Your task to perform on an android device: Add razer blackwidow to the cart on ebay.com, then select checkout. Image 0: 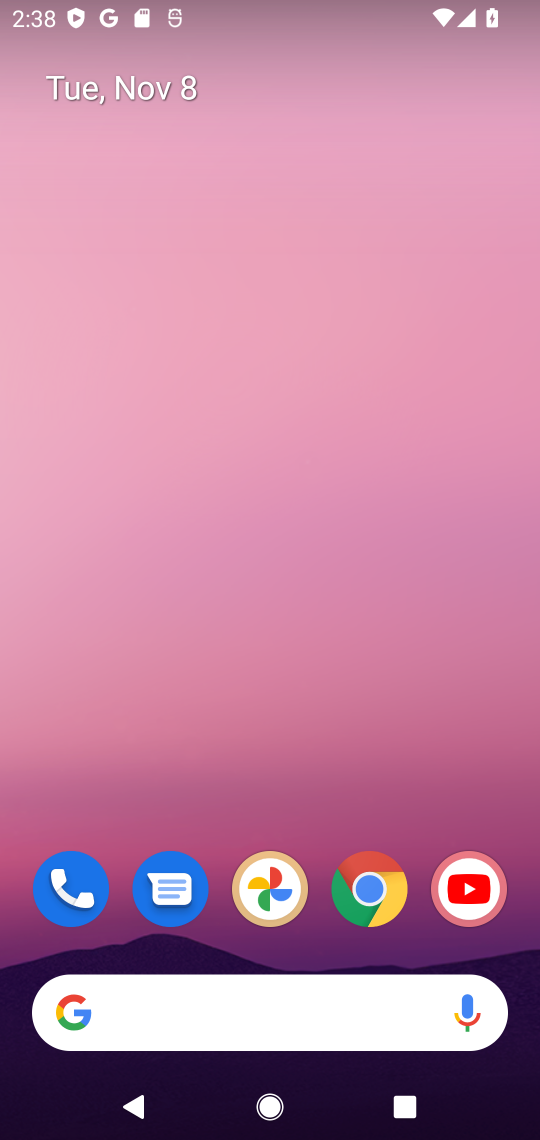
Step 0: click (372, 890)
Your task to perform on an android device: Add razer blackwidow to the cart on ebay.com, then select checkout. Image 1: 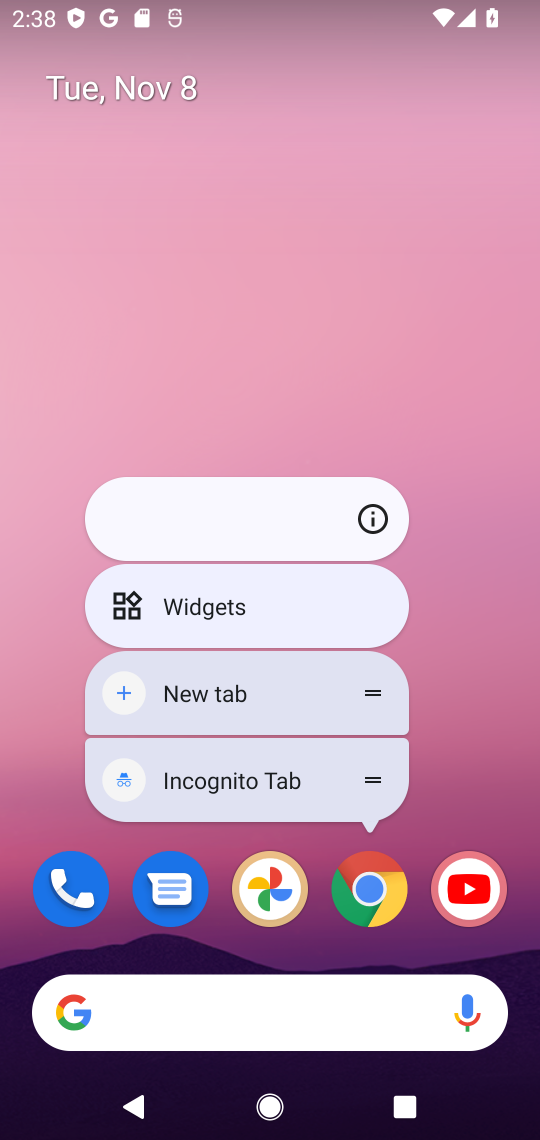
Step 1: click (372, 890)
Your task to perform on an android device: Add razer blackwidow to the cart on ebay.com, then select checkout. Image 2: 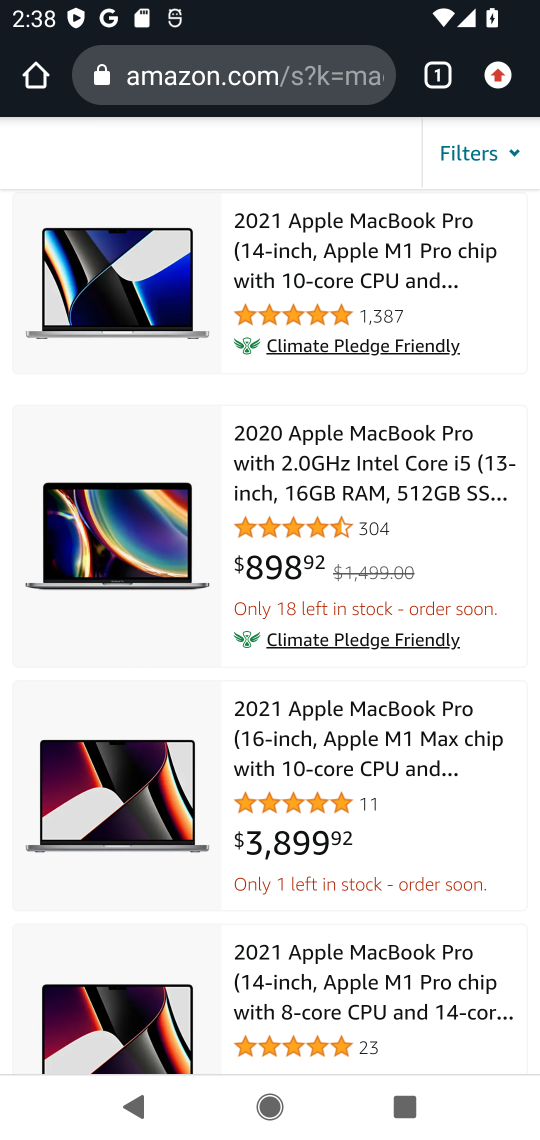
Step 2: click (181, 79)
Your task to perform on an android device: Add razer blackwidow to the cart on ebay.com, then select checkout. Image 3: 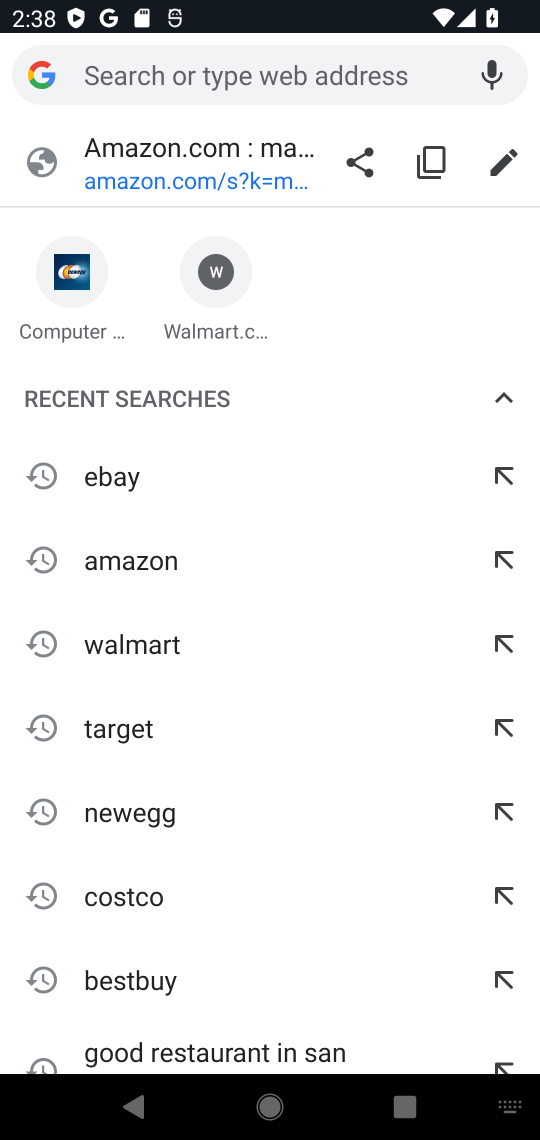
Step 3: type "ebay.com"
Your task to perform on an android device: Add razer blackwidow to the cart on ebay.com, then select checkout. Image 4: 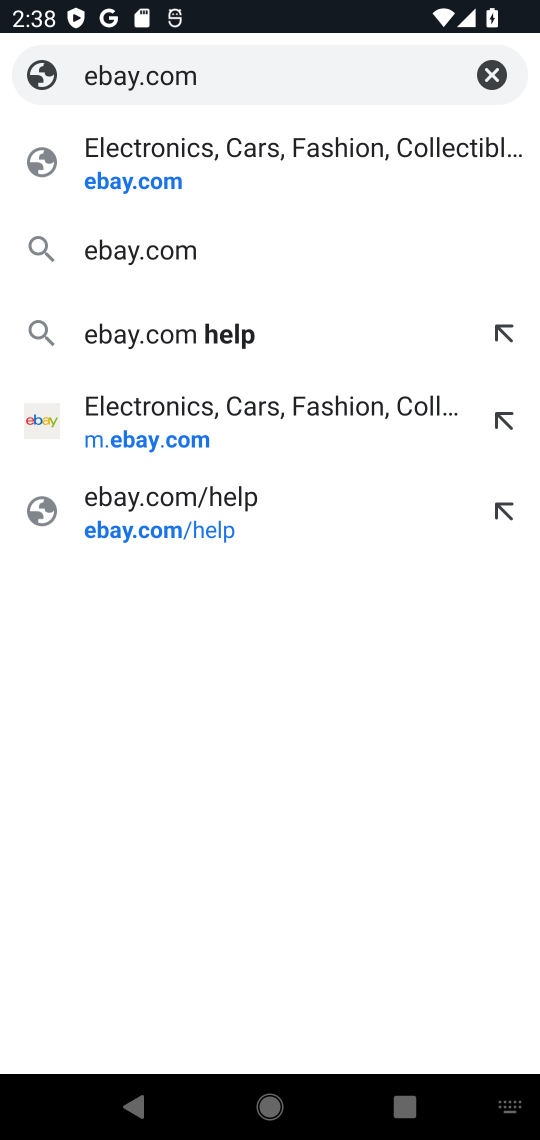
Step 4: click (115, 191)
Your task to perform on an android device: Add razer blackwidow to the cart on ebay.com, then select checkout. Image 5: 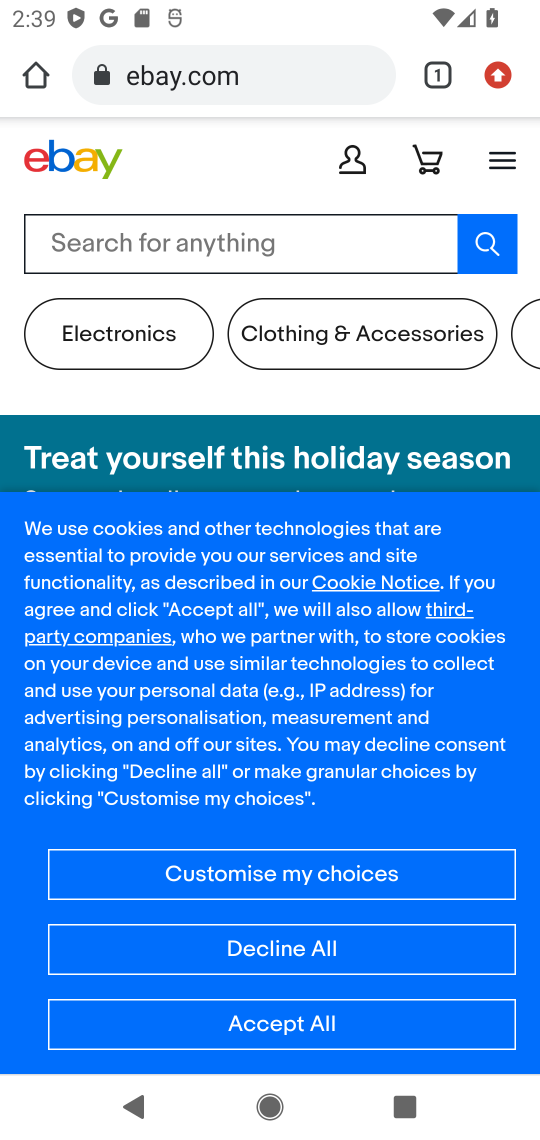
Step 5: click (110, 246)
Your task to perform on an android device: Add razer blackwidow to the cart on ebay.com, then select checkout. Image 6: 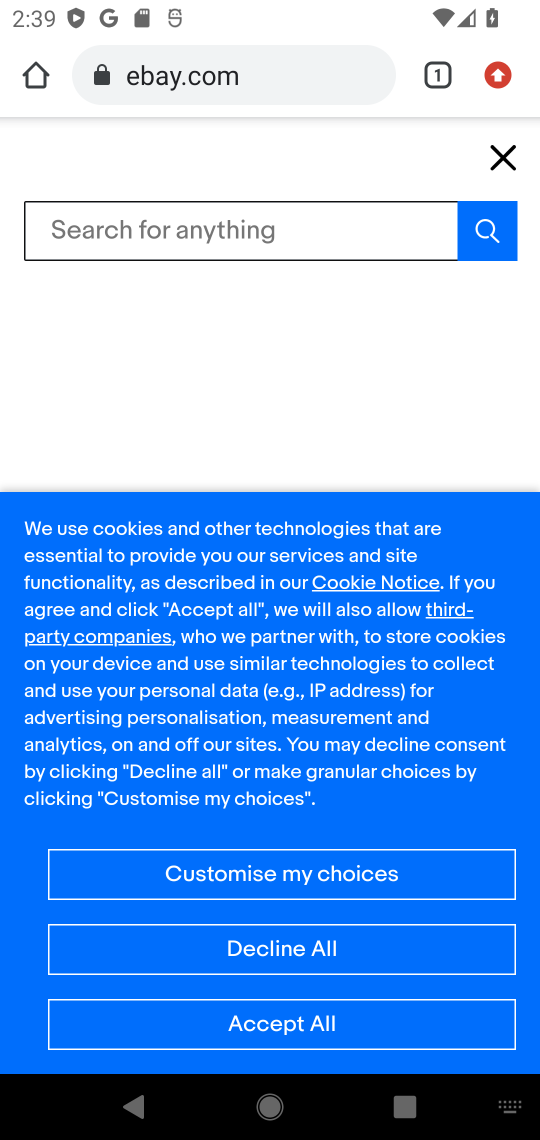
Step 6: type "razer blackwidow"
Your task to perform on an android device: Add razer blackwidow to the cart on ebay.com, then select checkout. Image 7: 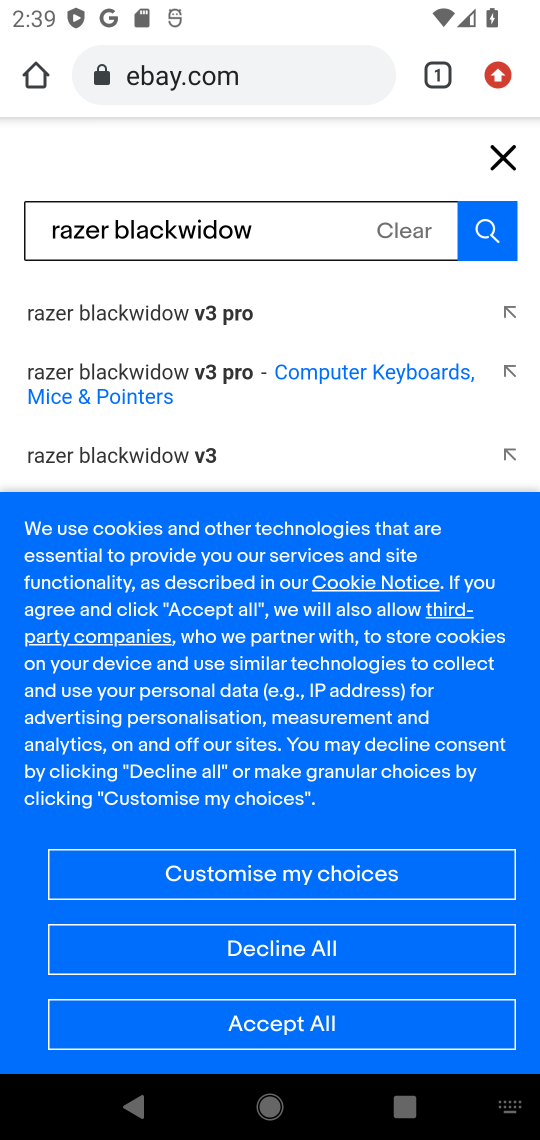
Step 7: drag from (320, 434) to (306, 340)
Your task to perform on an android device: Add razer blackwidow to the cart on ebay.com, then select checkout. Image 8: 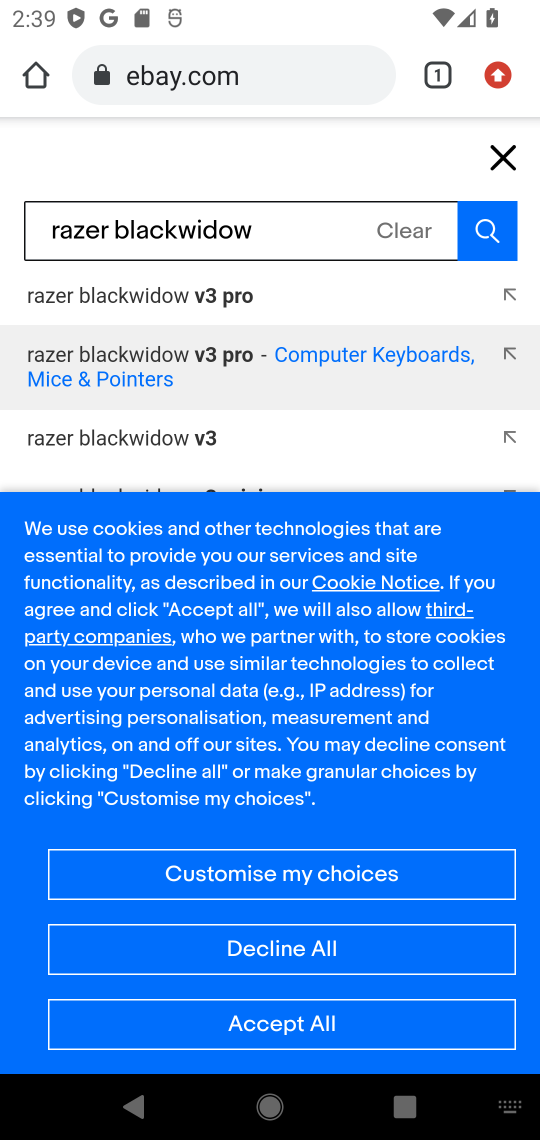
Step 8: click (487, 233)
Your task to perform on an android device: Add razer blackwidow to the cart on ebay.com, then select checkout. Image 9: 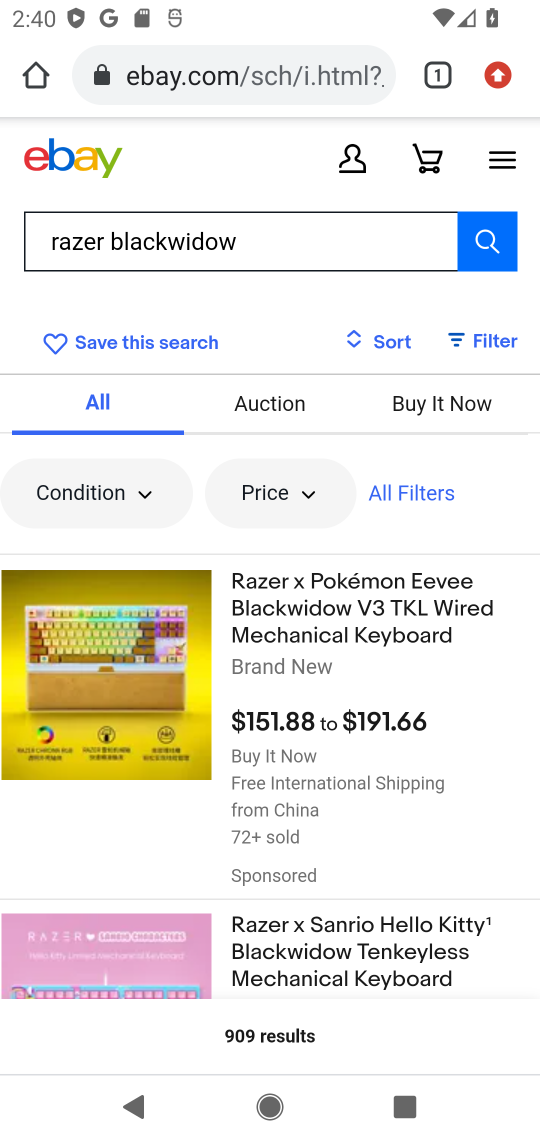
Step 9: drag from (98, 867) to (149, 537)
Your task to perform on an android device: Add razer blackwidow to the cart on ebay.com, then select checkout. Image 10: 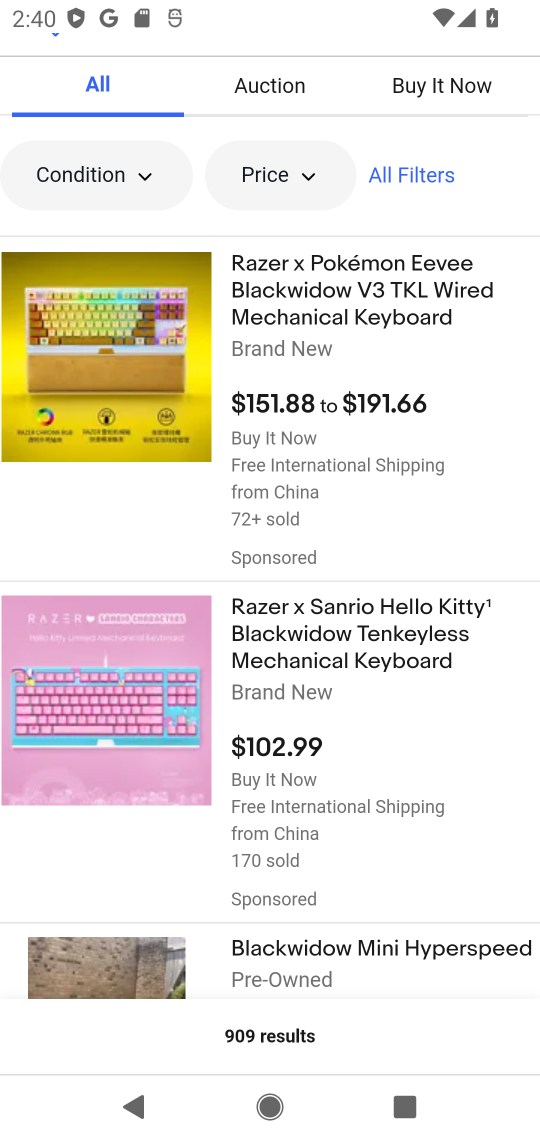
Step 10: drag from (140, 774) to (162, 459)
Your task to perform on an android device: Add razer blackwidow to the cart on ebay.com, then select checkout. Image 11: 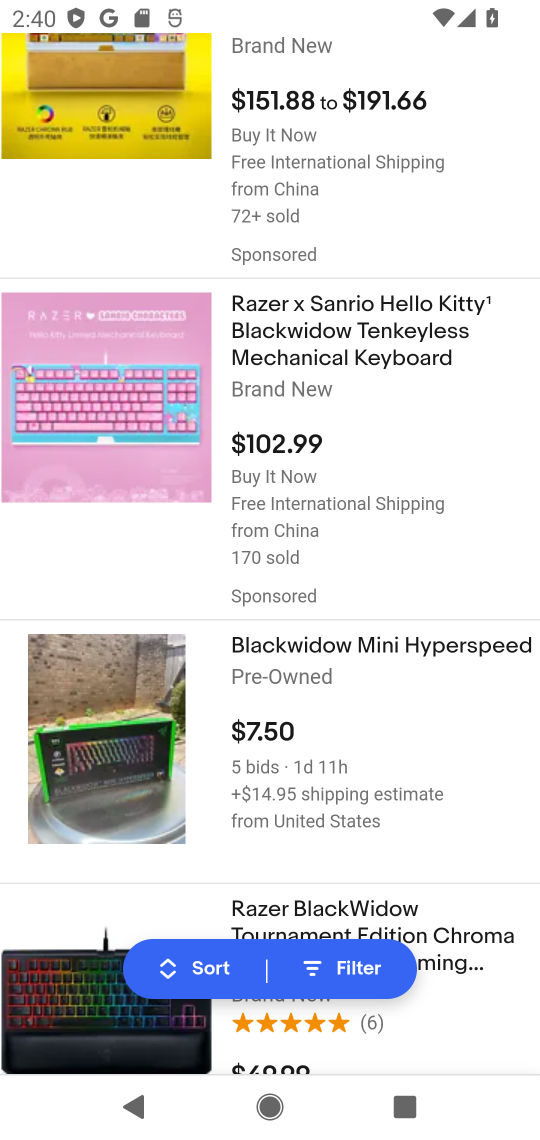
Step 11: drag from (150, 899) to (172, 564)
Your task to perform on an android device: Add razer blackwidow to the cart on ebay.com, then select checkout. Image 12: 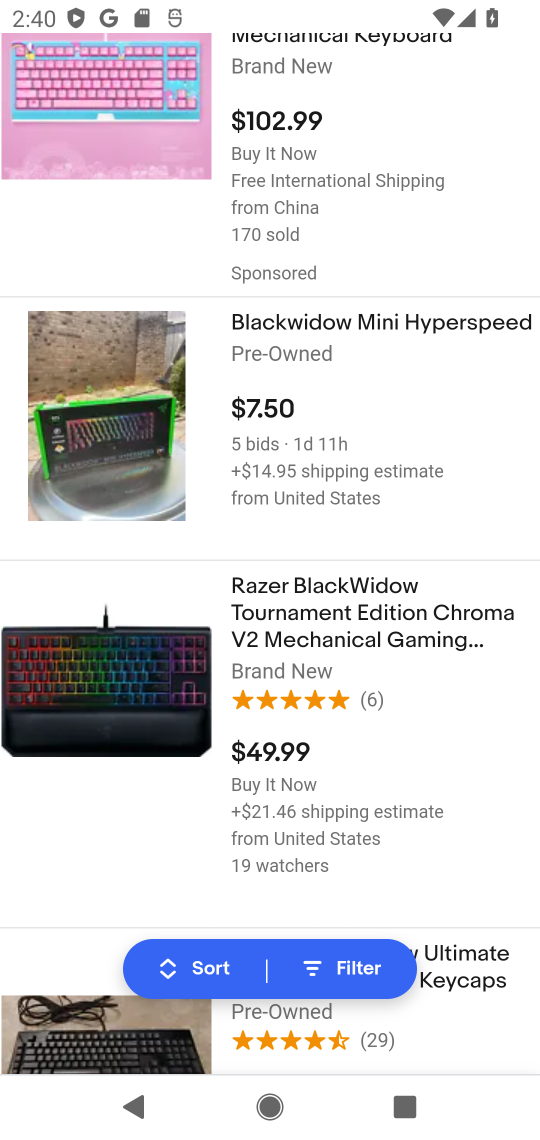
Step 12: click (132, 699)
Your task to perform on an android device: Add razer blackwidow to the cart on ebay.com, then select checkout. Image 13: 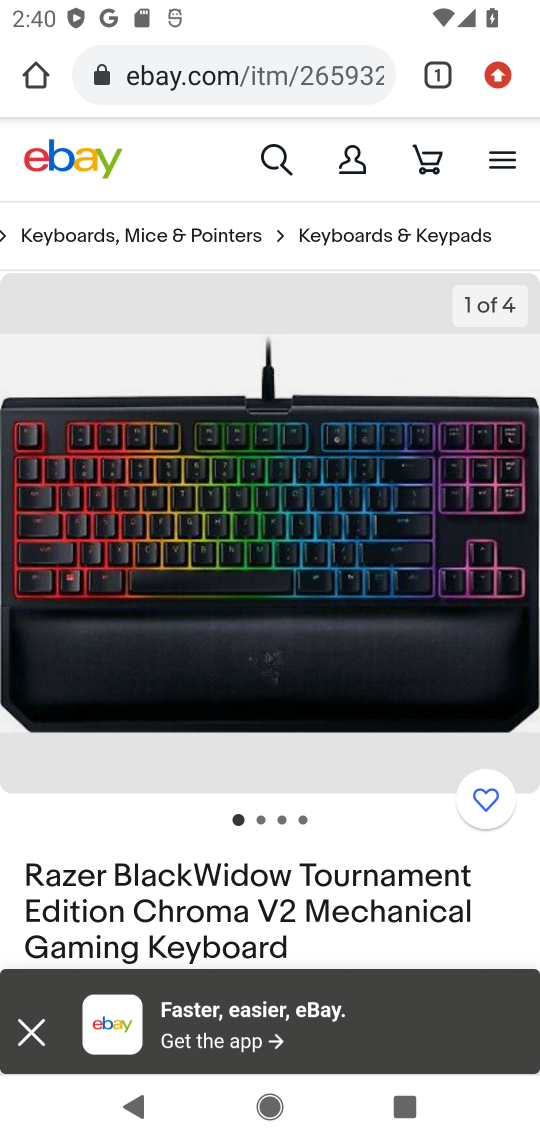
Step 13: drag from (242, 827) to (221, 406)
Your task to perform on an android device: Add razer blackwidow to the cart on ebay.com, then select checkout. Image 14: 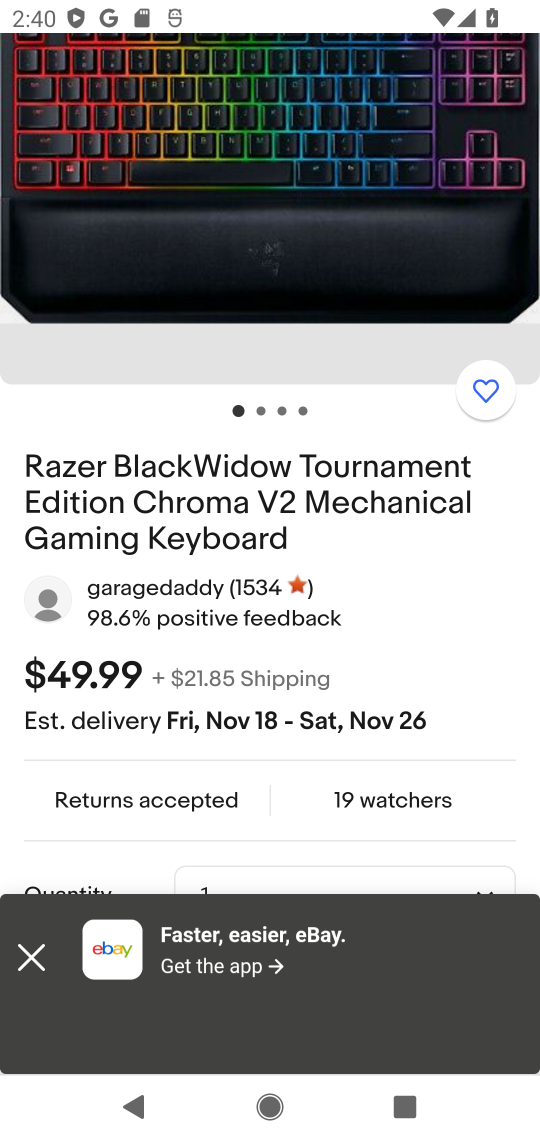
Step 14: drag from (236, 757) to (245, 383)
Your task to perform on an android device: Add razer blackwidow to the cart on ebay.com, then select checkout. Image 15: 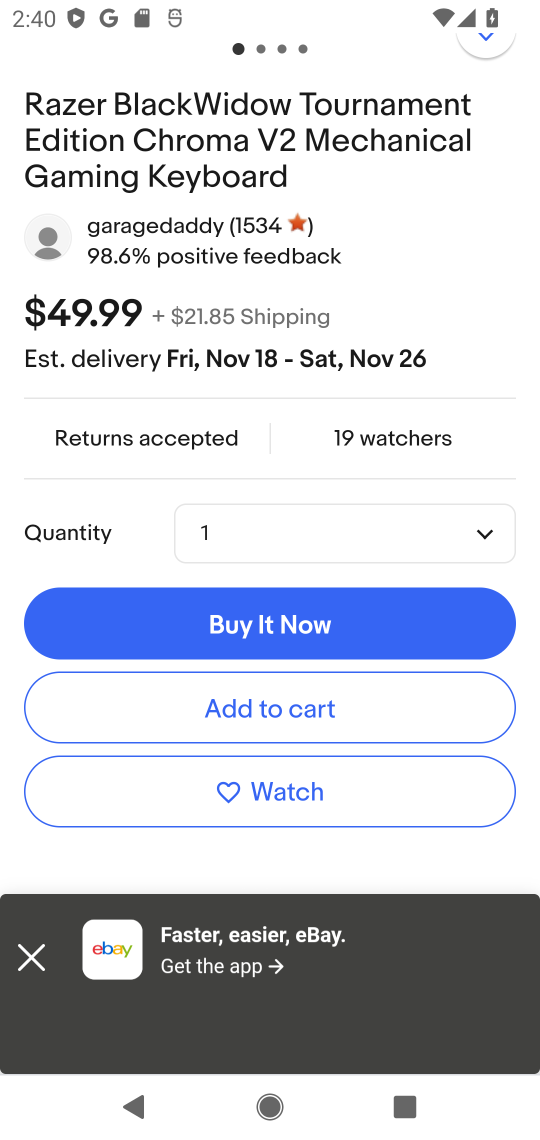
Step 15: click (247, 712)
Your task to perform on an android device: Add razer blackwidow to the cart on ebay.com, then select checkout. Image 16: 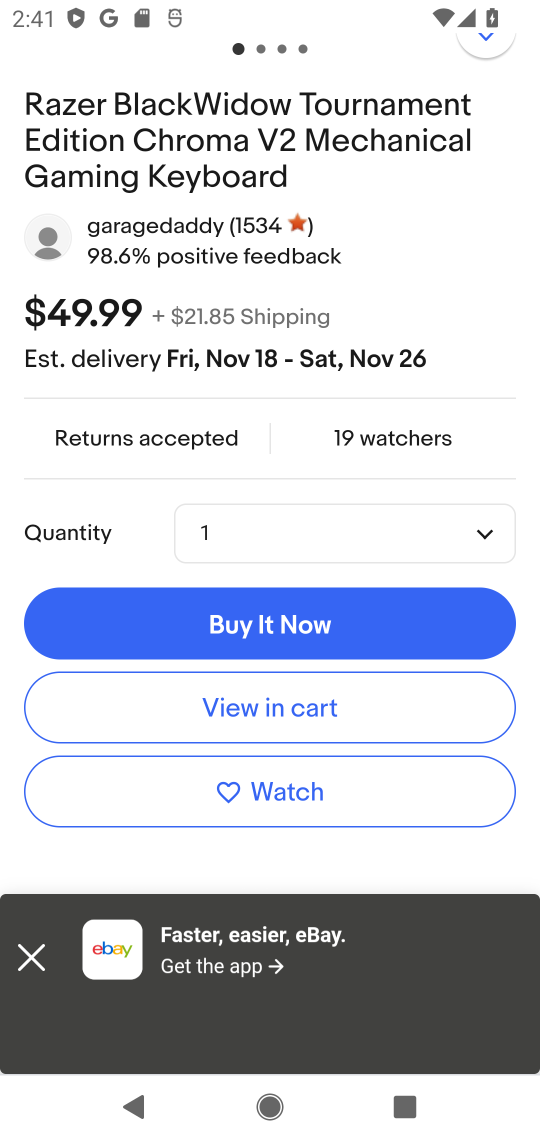
Step 16: click (247, 712)
Your task to perform on an android device: Add razer blackwidow to the cart on ebay.com, then select checkout. Image 17: 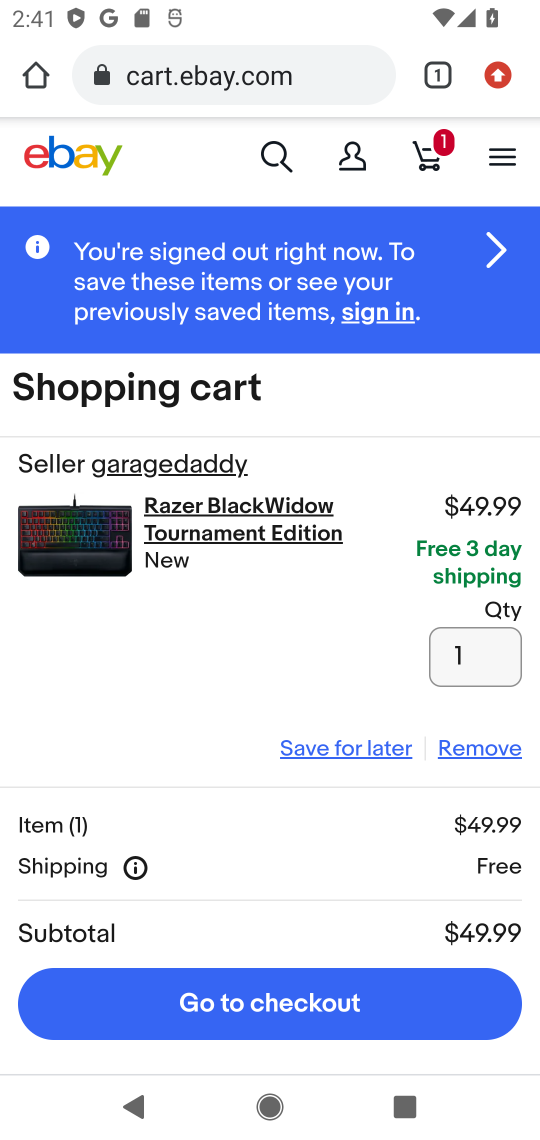
Step 17: click (235, 1008)
Your task to perform on an android device: Add razer blackwidow to the cart on ebay.com, then select checkout. Image 18: 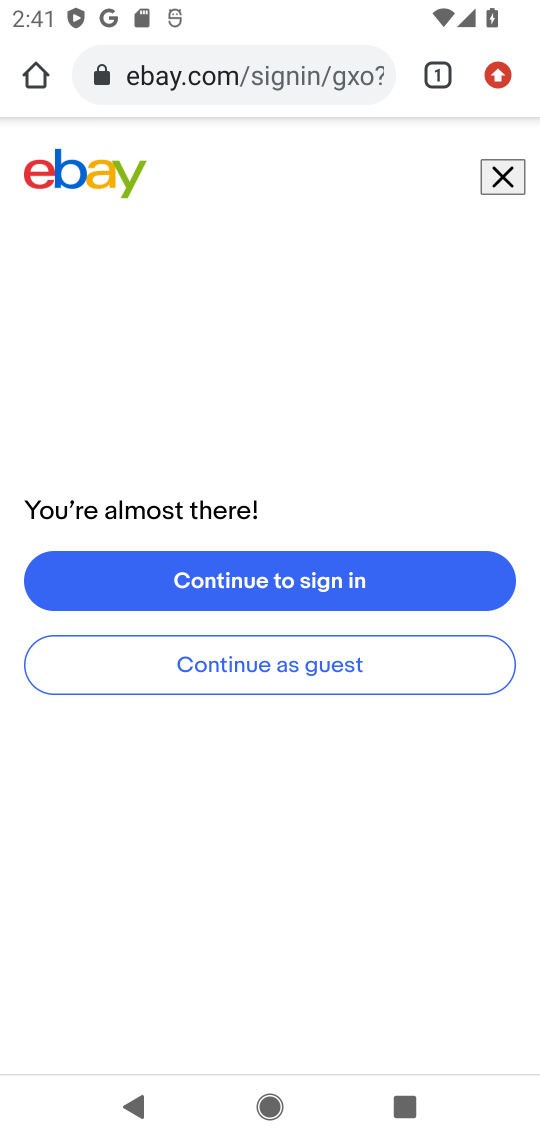
Step 18: task complete